Your task to perform on an android device: turn off location Image 0: 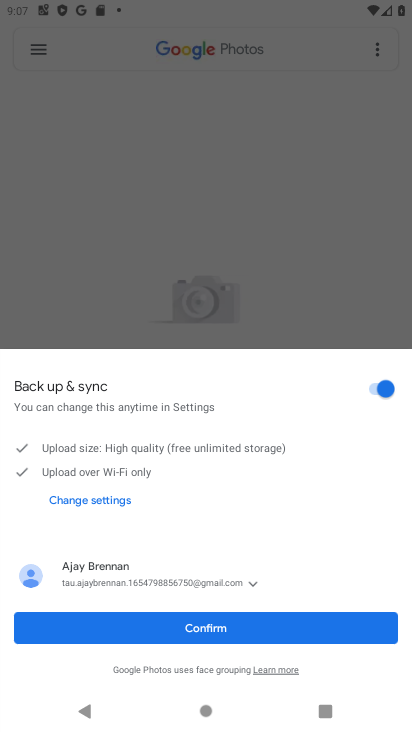
Step 0: press home button
Your task to perform on an android device: turn off location Image 1: 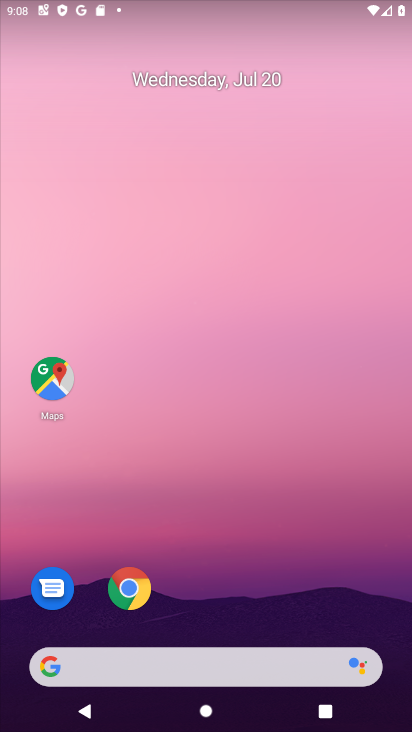
Step 1: drag from (184, 633) to (114, 189)
Your task to perform on an android device: turn off location Image 2: 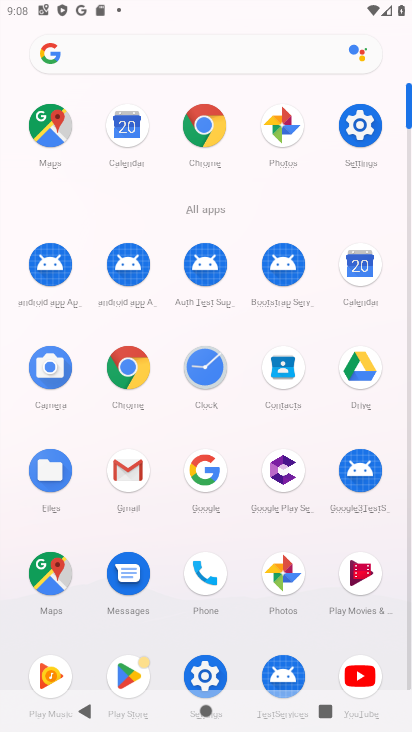
Step 2: click (355, 116)
Your task to perform on an android device: turn off location Image 3: 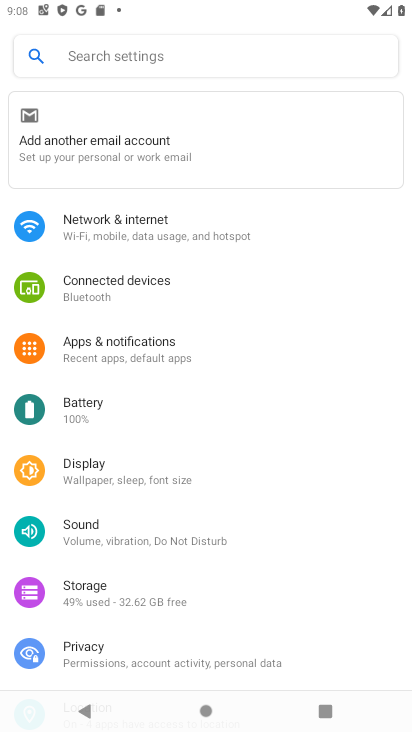
Step 3: drag from (172, 611) to (220, 203)
Your task to perform on an android device: turn off location Image 4: 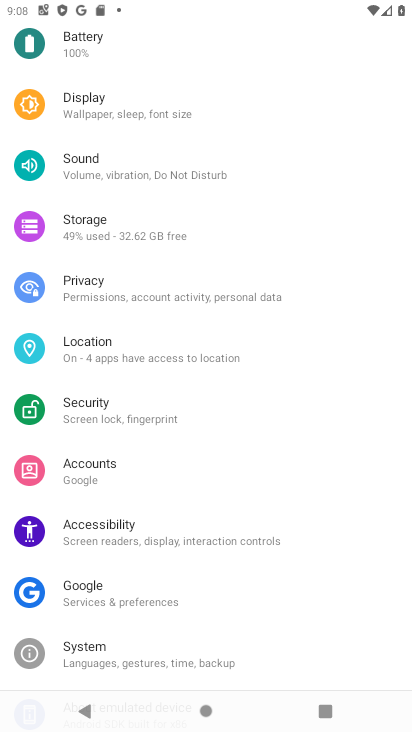
Step 4: click (139, 356)
Your task to perform on an android device: turn off location Image 5: 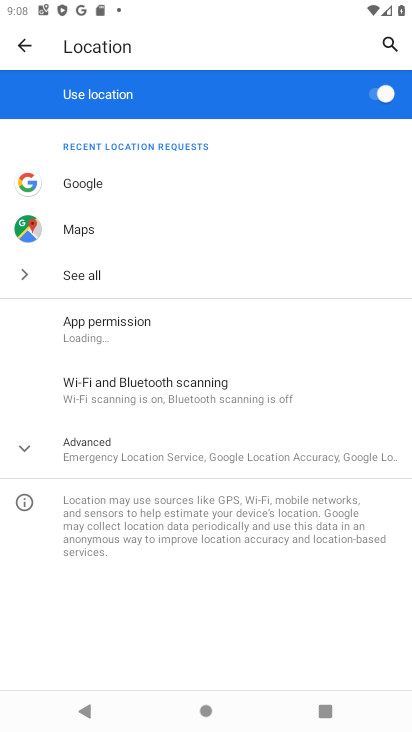
Step 5: click (382, 100)
Your task to perform on an android device: turn off location Image 6: 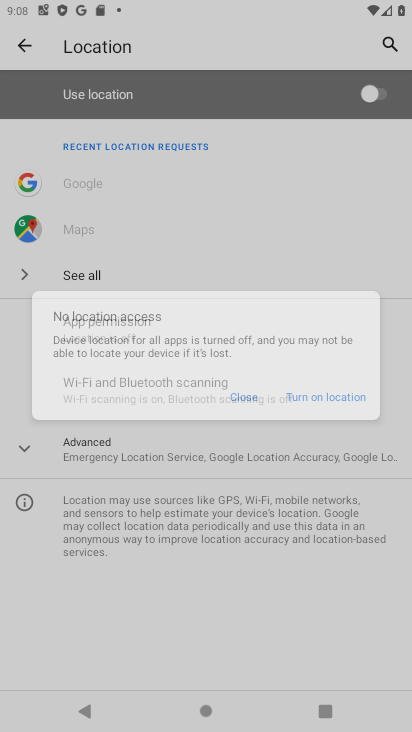
Step 6: task complete